Your task to perform on an android device: Search for sushi restaurants on Maps Image 0: 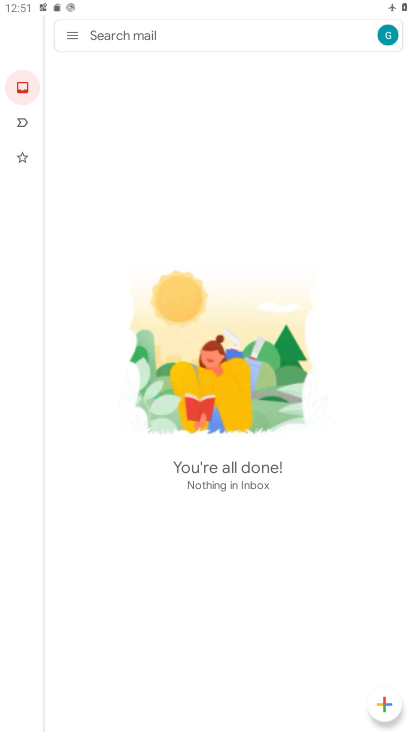
Step 0: press home button
Your task to perform on an android device: Search for sushi restaurants on Maps Image 1: 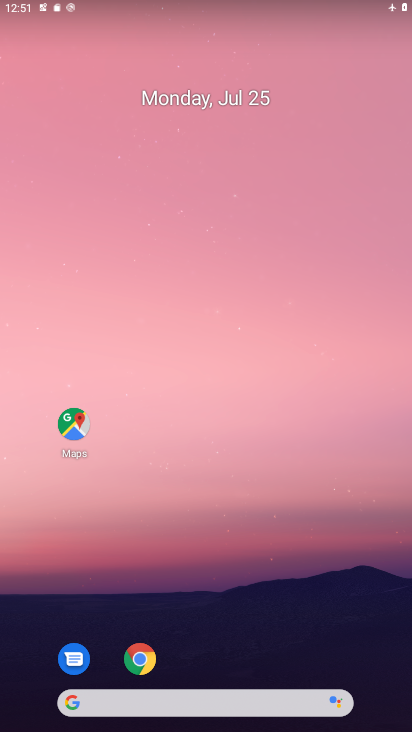
Step 1: click (72, 425)
Your task to perform on an android device: Search for sushi restaurants on Maps Image 2: 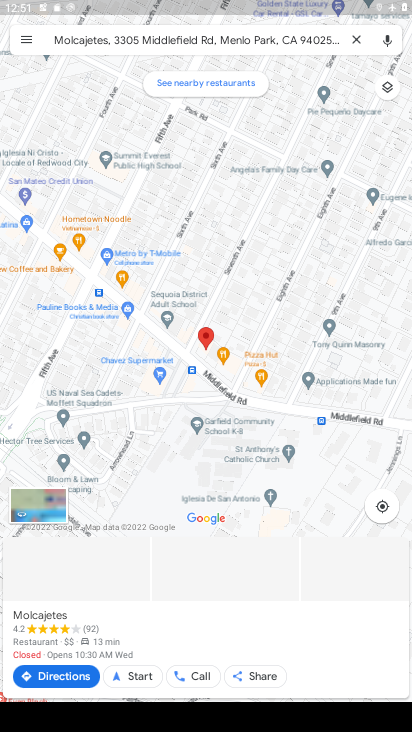
Step 2: press back button
Your task to perform on an android device: Search for sushi restaurants on Maps Image 3: 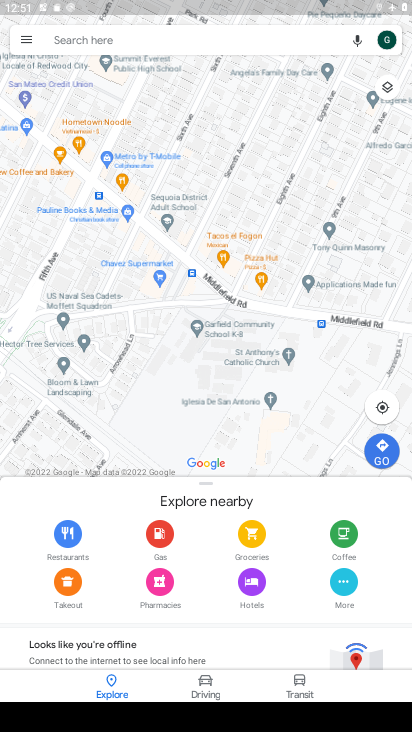
Step 3: click (83, 29)
Your task to perform on an android device: Search for sushi restaurants on Maps Image 4: 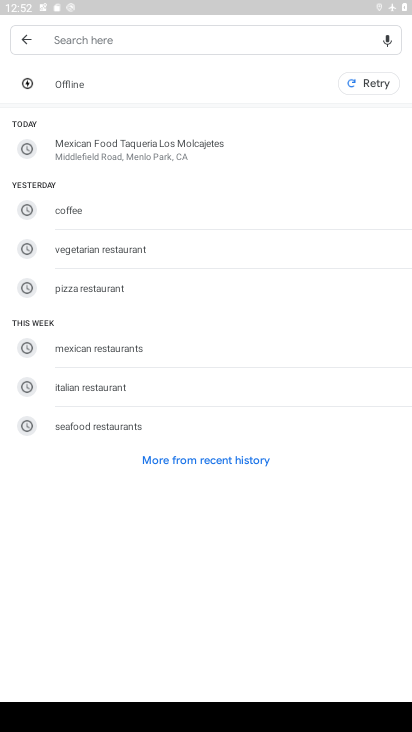
Step 4: type "sushi"
Your task to perform on an android device: Search for sushi restaurants on Maps Image 5: 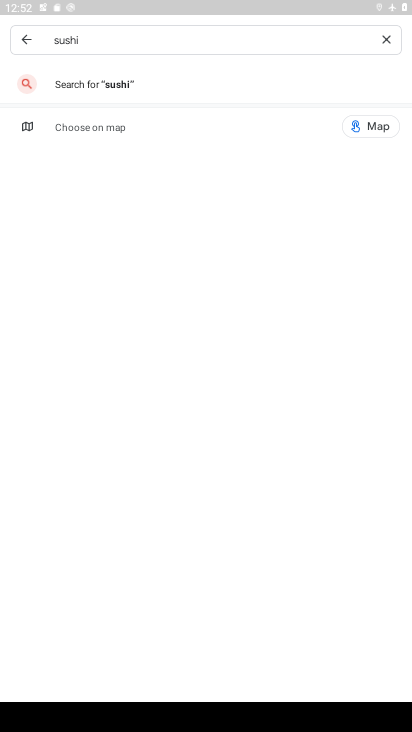
Step 5: task complete